Your task to perform on an android device: Clear the shopping cart on costco.com. Add "usb-c to usb-b" to the cart on costco.com Image 0: 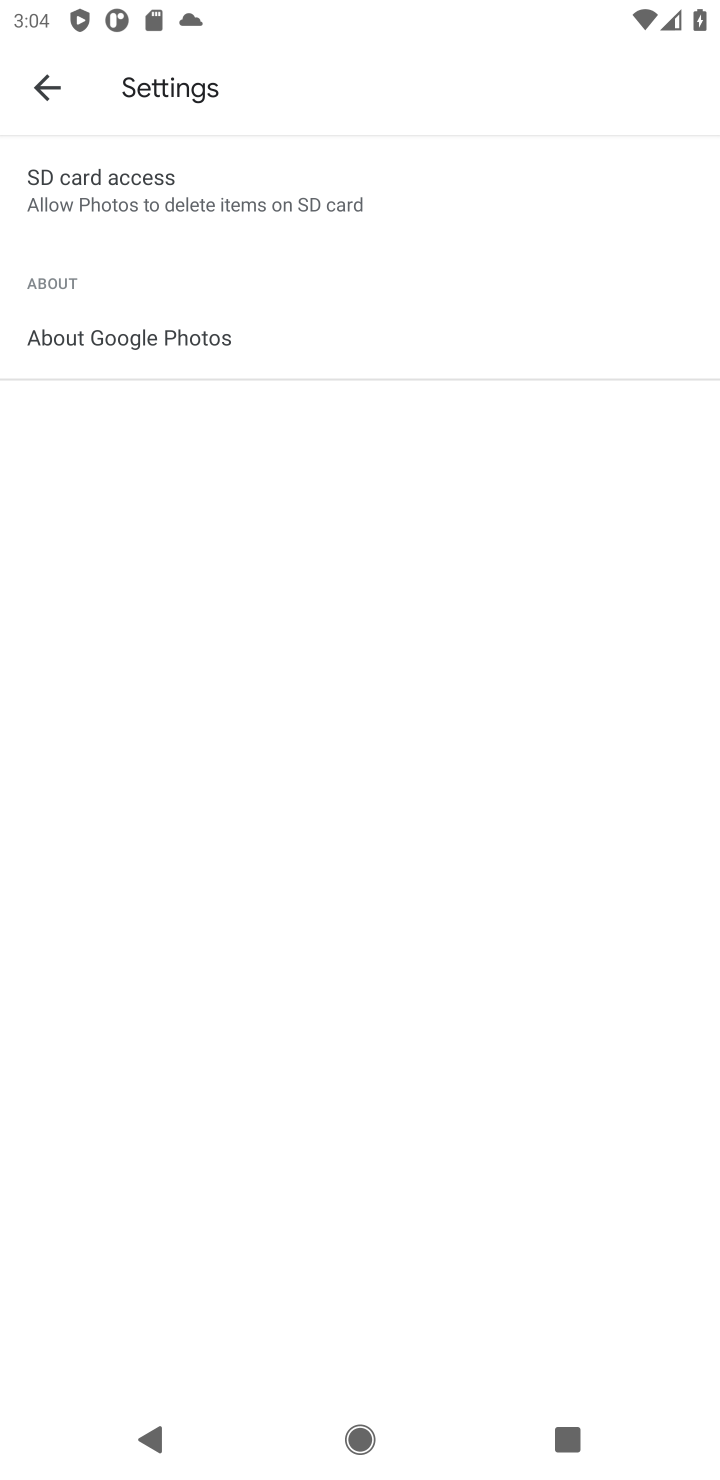
Step 0: press home button
Your task to perform on an android device: Clear the shopping cart on costco.com. Add "usb-c to usb-b" to the cart on costco.com Image 1: 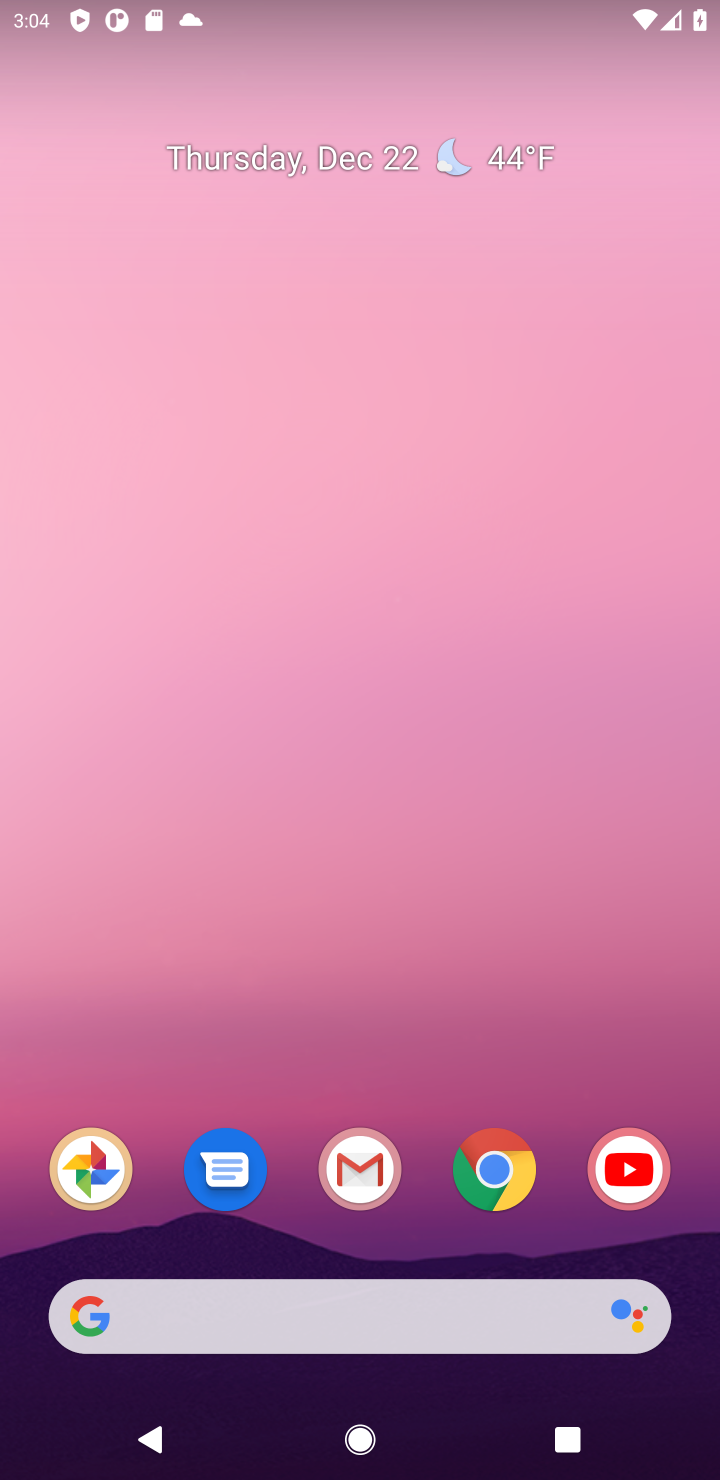
Step 1: click (489, 1180)
Your task to perform on an android device: Clear the shopping cart on costco.com. Add "usb-c to usb-b" to the cart on costco.com Image 2: 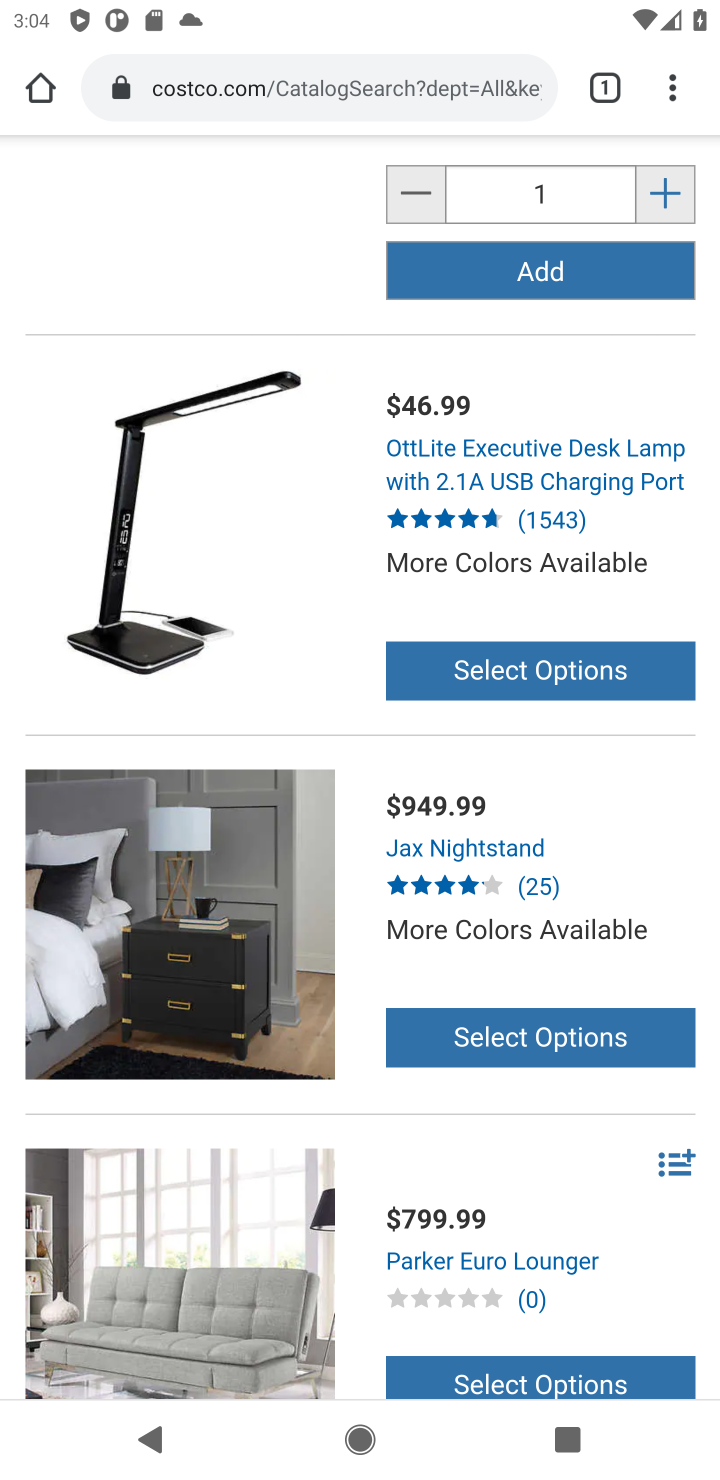
Step 2: press back button
Your task to perform on an android device: Clear the shopping cart on costco.com. Add "usb-c to usb-b" to the cart on costco.com Image 3: 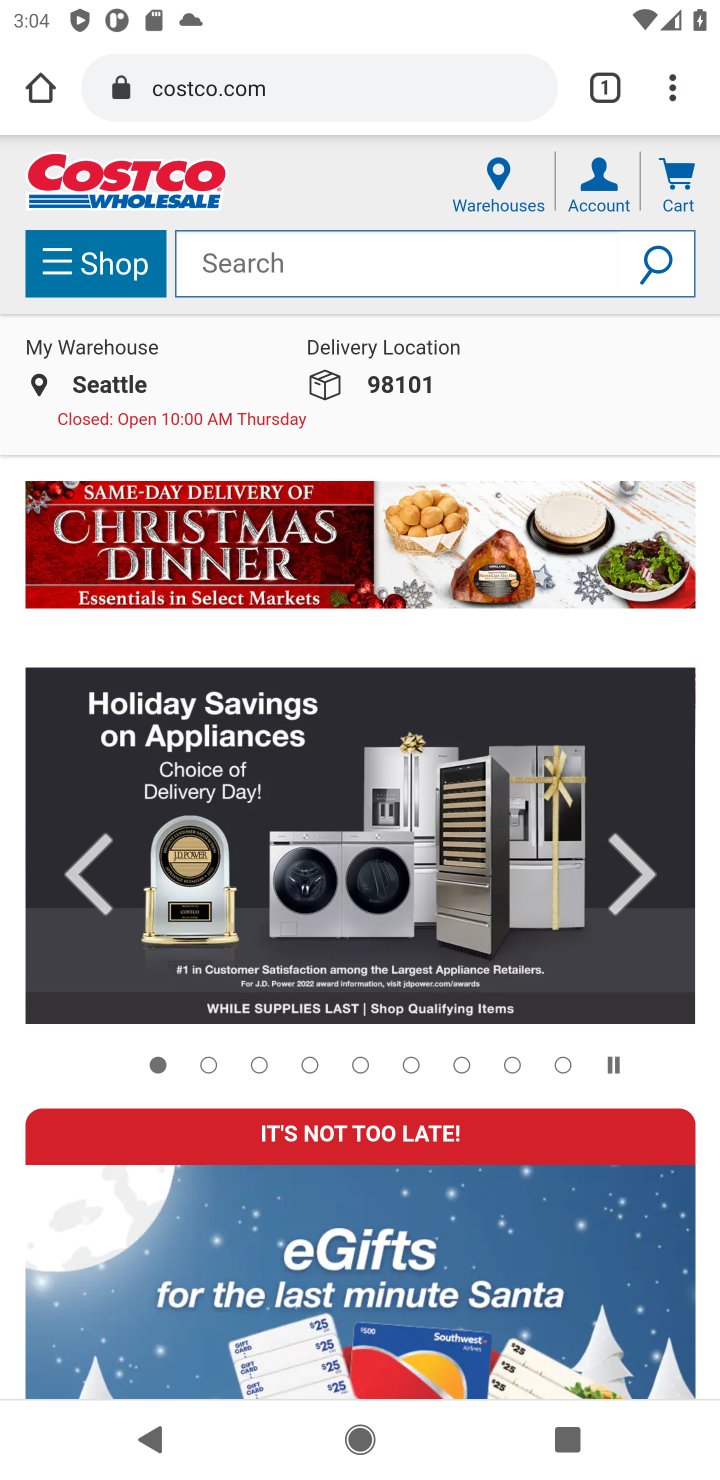
Step 3: click (677, 197)
Your task to perform on an android device: Clear the shopping cart on costco.com. Add "usb-c to usb-b" to the cart on costco.com Image 4: 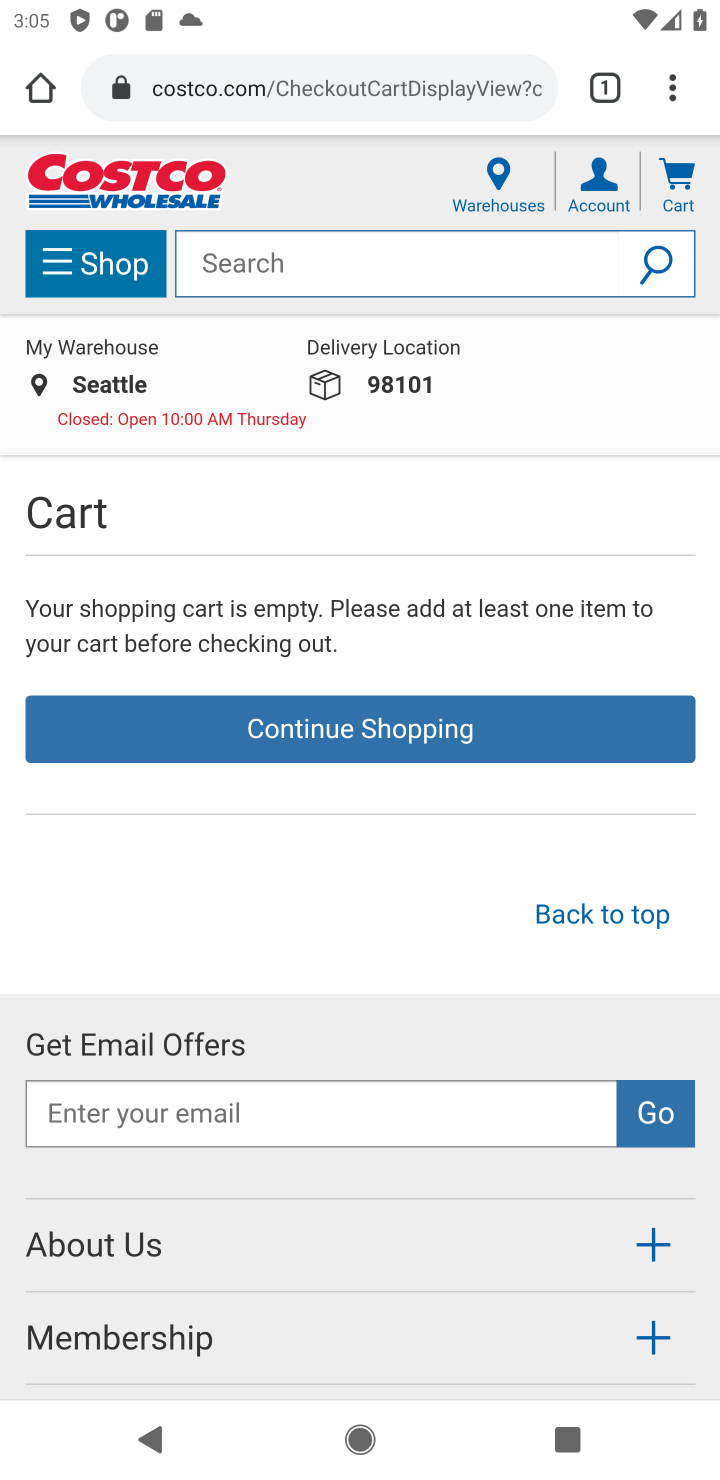
Step 4: click (283, 267)
Your task to perform on an android device: Clear the shopping cart on costco.com. Add "usb-c to usb-b" to the cart on costco.com Image 5: 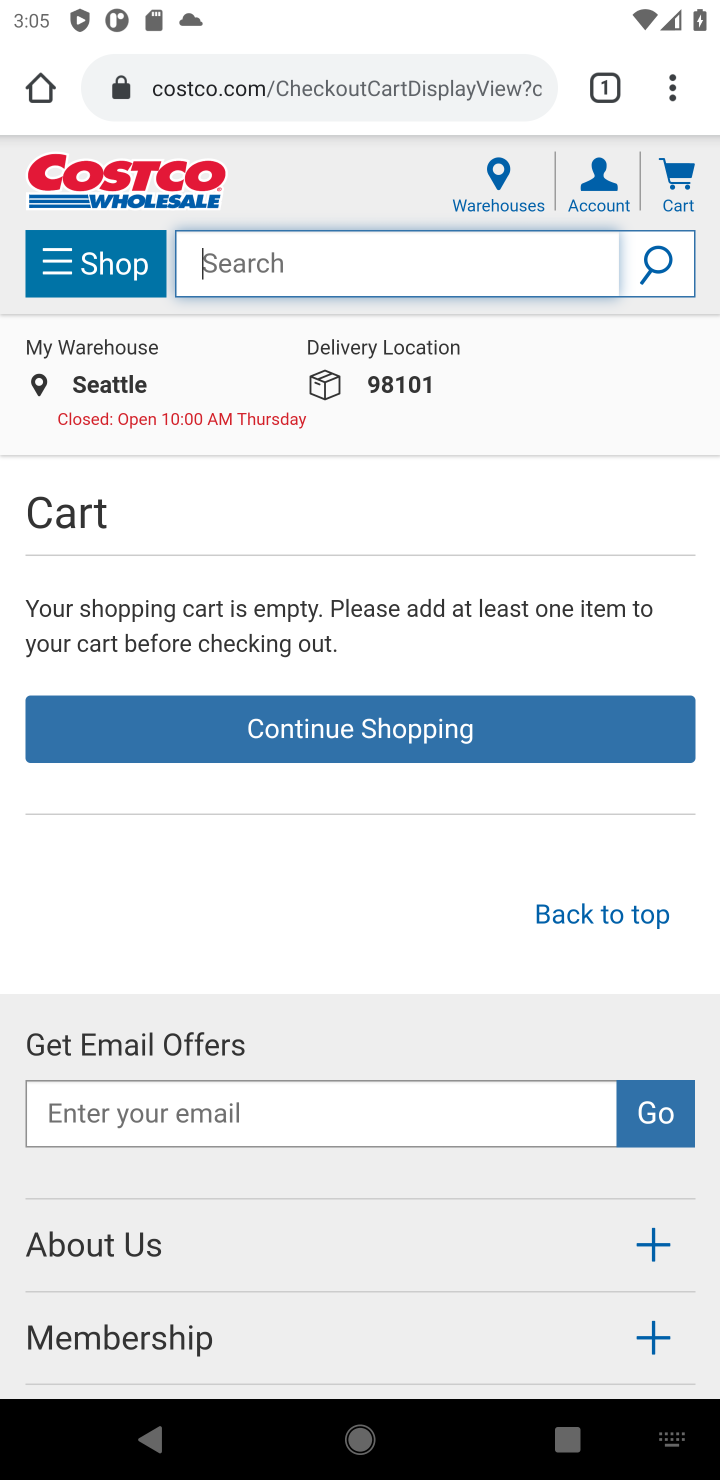
Step 5: type "usb-c to usb-b"
Your task to perform on an android device: Clear the shopping cart on costco.com. Add "usb-c to usb-b" to the cart on costco.com Image 6: 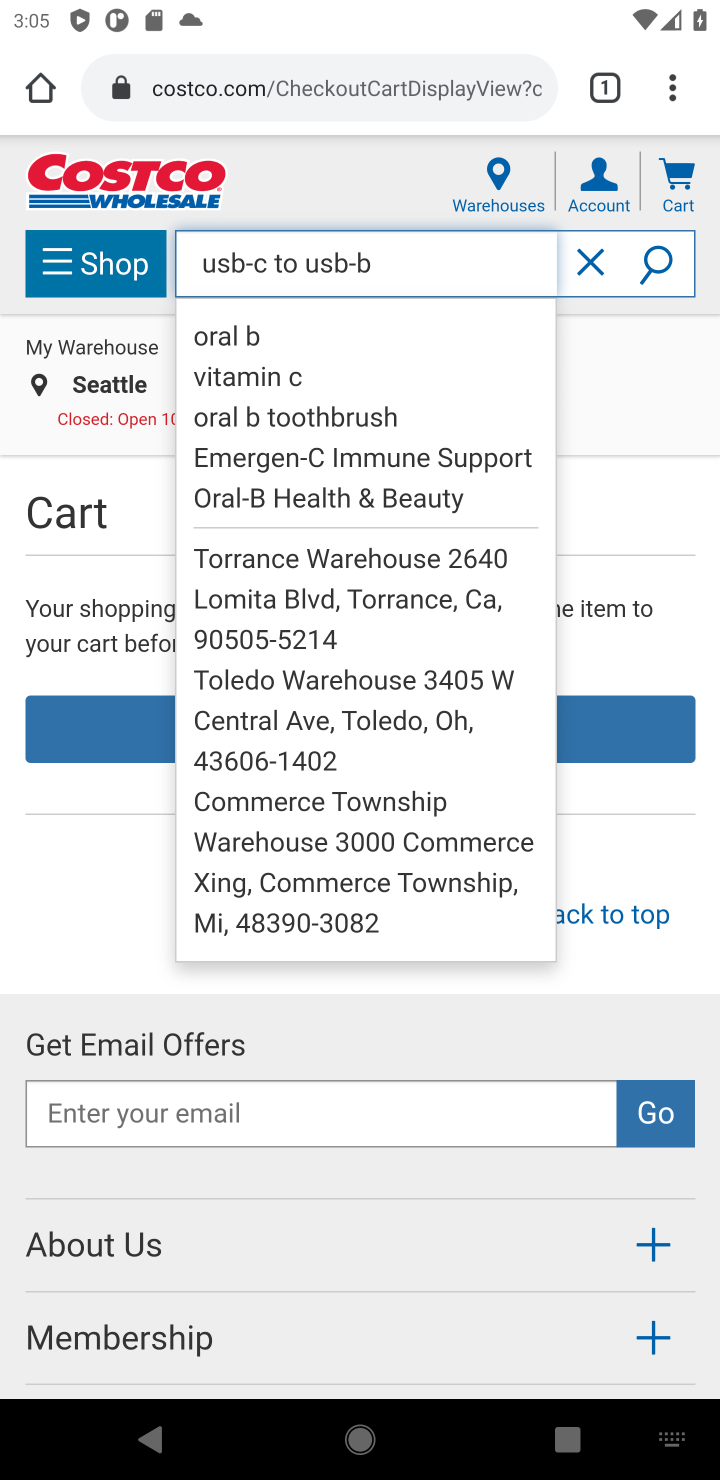
Step 6: click (667, 264)
Your task to perform on an android device: Clear the shopping cart on costco.com. Add "usb-c to usb-b" to the cart on costco.com Image 7: 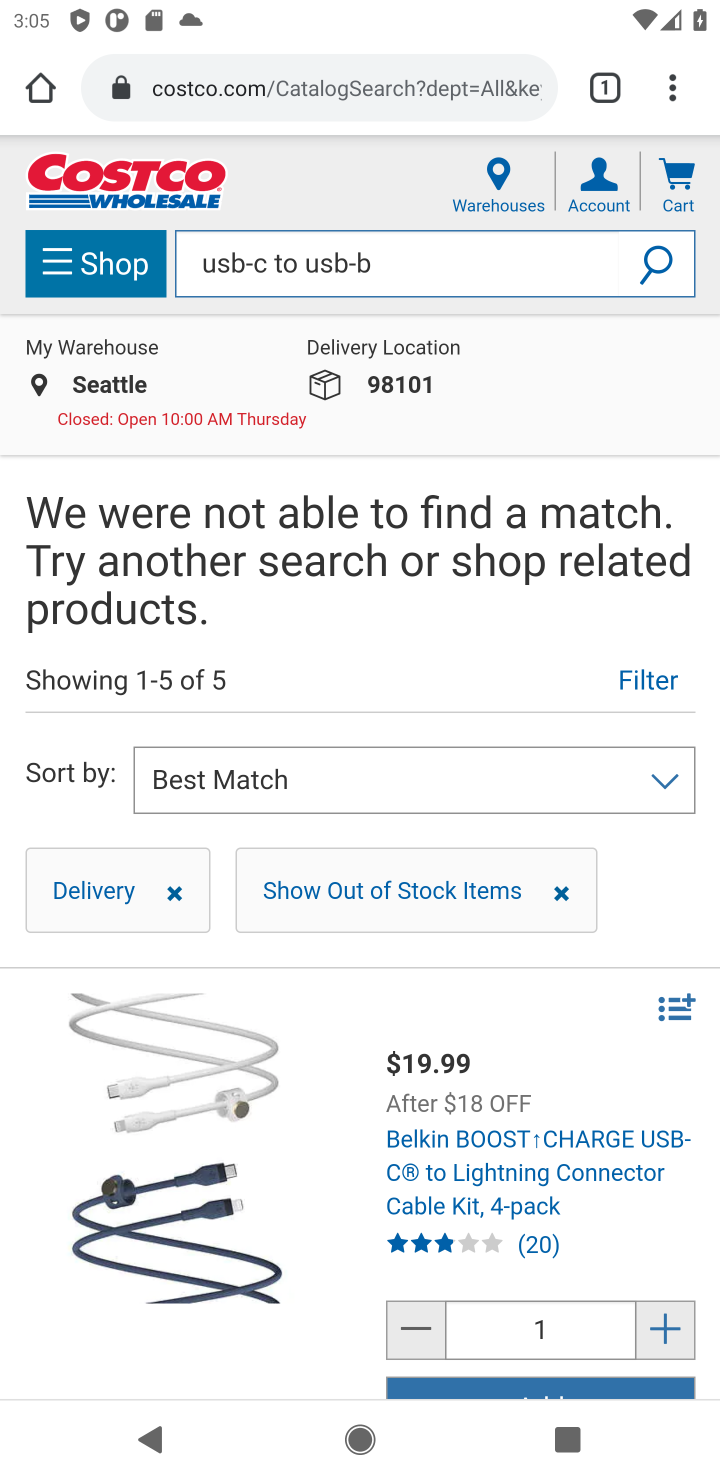
Step 7: task complete